Your task to perform on an android device: Go to calendar. Show me events next week Image 0: 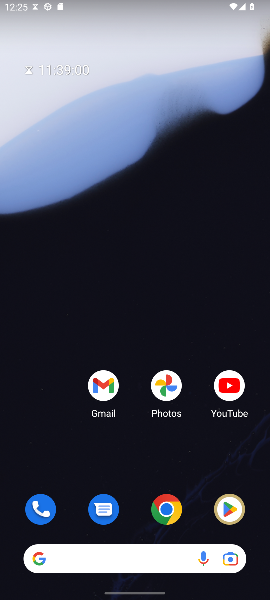
Step 0: press home button
Your task to perform on an android device: Go to calendar. Show me events next week Image 1: 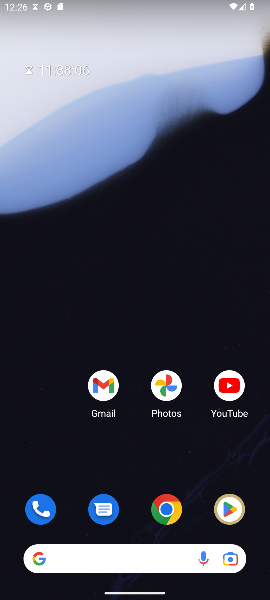
Step 1: drag from (142, 521) to (137, 74)
Your task to perform on an android device: Go to calendar. Show me events next week Image 2: 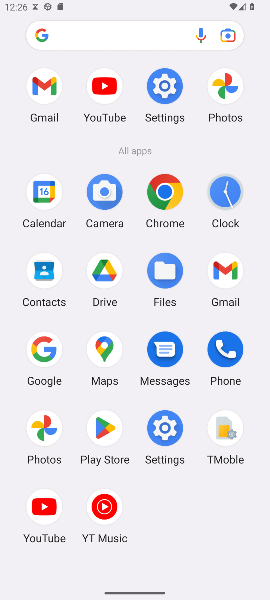
Step 2: click (40, 191)
Your task to perform on an android device: Go to calendar. Show me events next week Image 3: 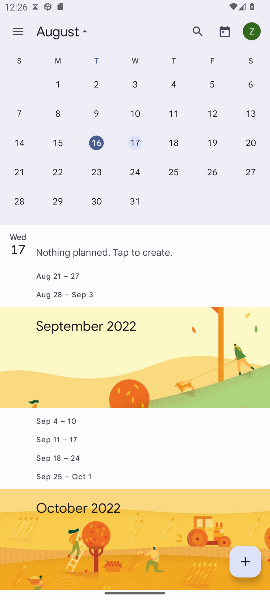
Step 3: click (14, 40)
Your task to perform on an android device: Go to calendar. Show me events next week Image 4: 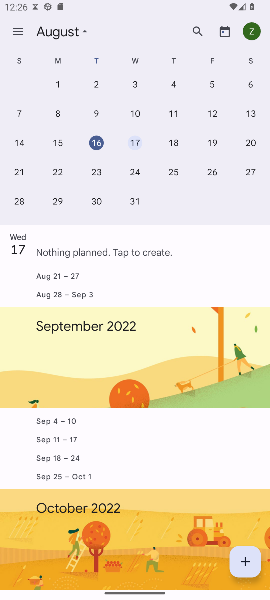
Step 4: click (20, 35)
Your task to perform on an android device: Go to calendar. Show me events next week Image 5: 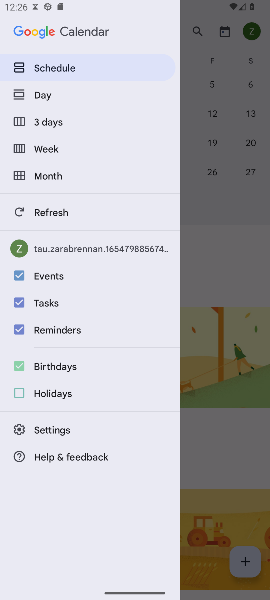
Step 5: click (55, 152)
Your task to perform on an android device: Go to calendar. Show me events next week Image 6: 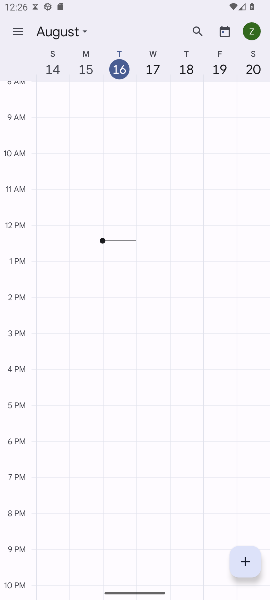
Step 6: task complete